Your task to perform on an android device: open device folders in google photos Image 0: 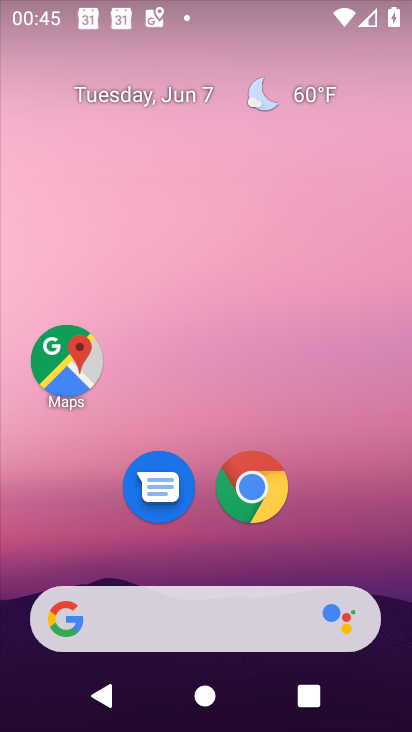
Step 0: drag from (387, 533) to (277, 29)
Your task to perform on an android device: open device folders in google photos Image 1: 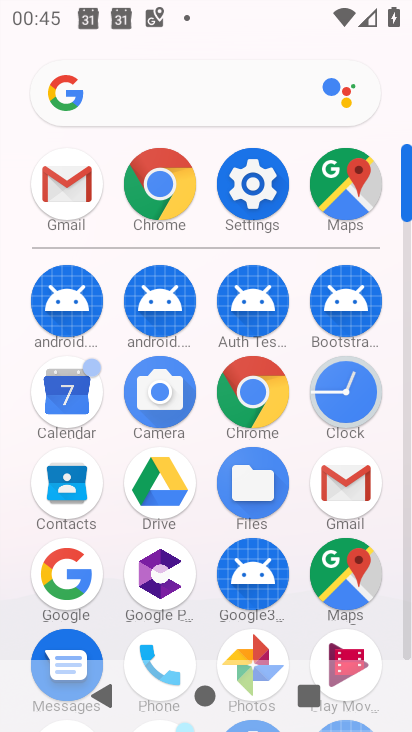
Step 1: click (260, 647)
Your task to perform on an android device: open device folders in google photos Image 2: 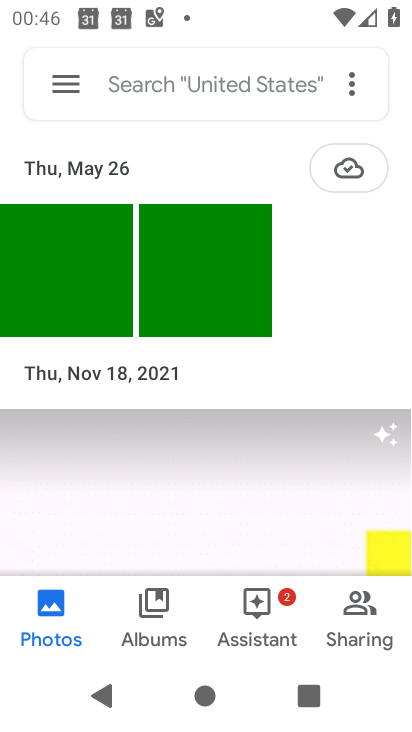
Step 2: click (60, 76)
Your task to perform on an android device: open device folders in google photos Image 3: 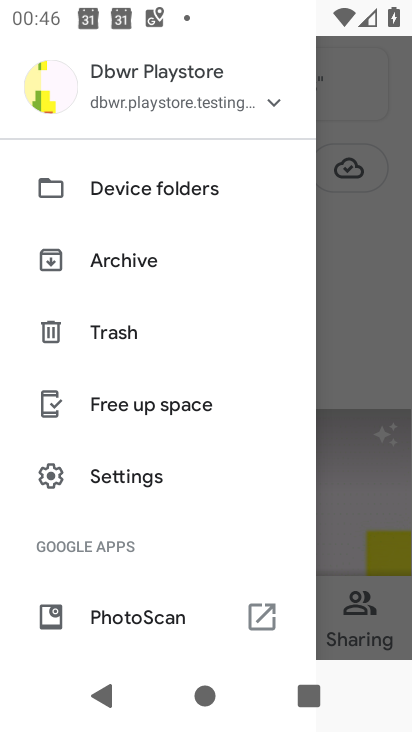
Step 3: click (137, 186)
Your task to perform on an android device: open device folders in google photos Image 4: 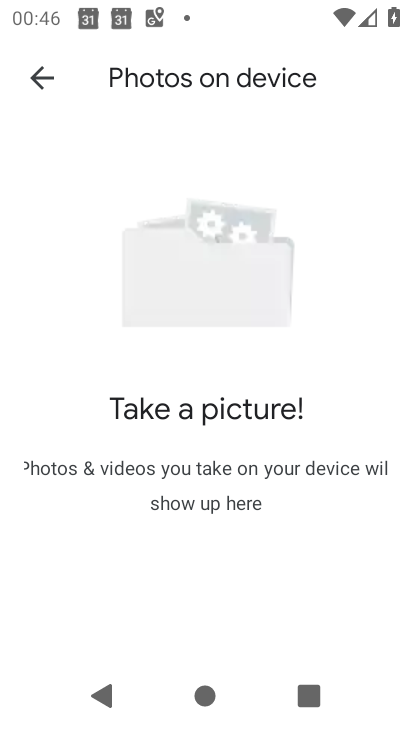
Step 4: task complete